Your task to perform on an android device: Open Youtube and go to "Your channel" Image 0: 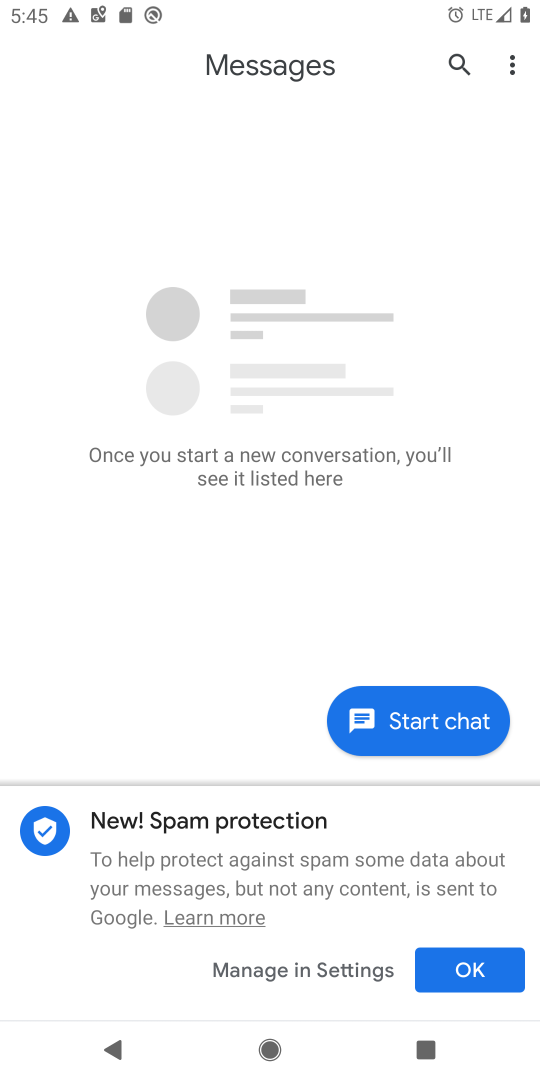
Step 0: press back button
Your task to perform on an android device: Open Youtube and go to "Your channel" Image 1: 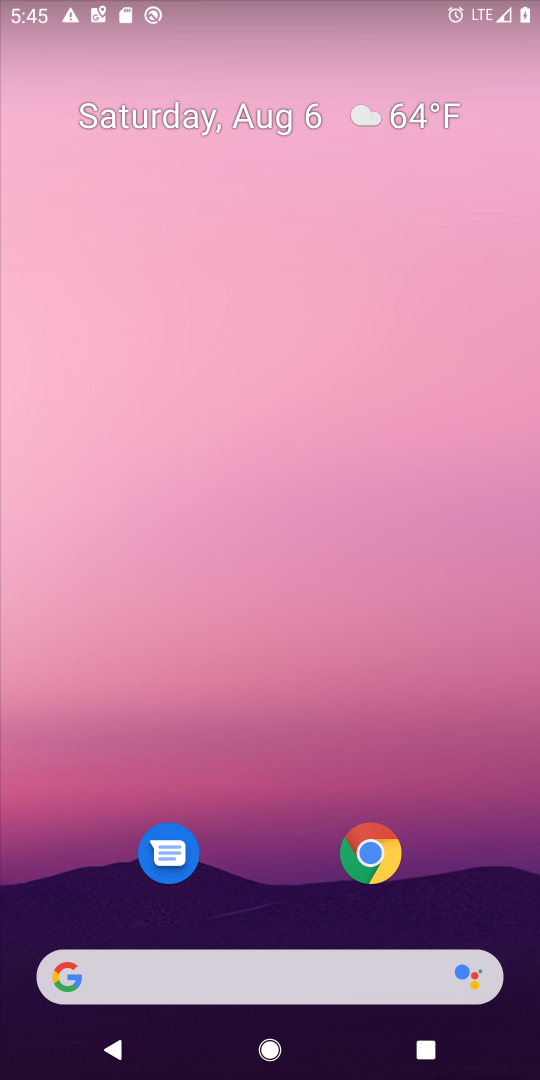
Step 1: drag from (292, 780) to (322, 91)
Your task to perform on an android device: Open Youtube and go to "Your channel" Image 2: 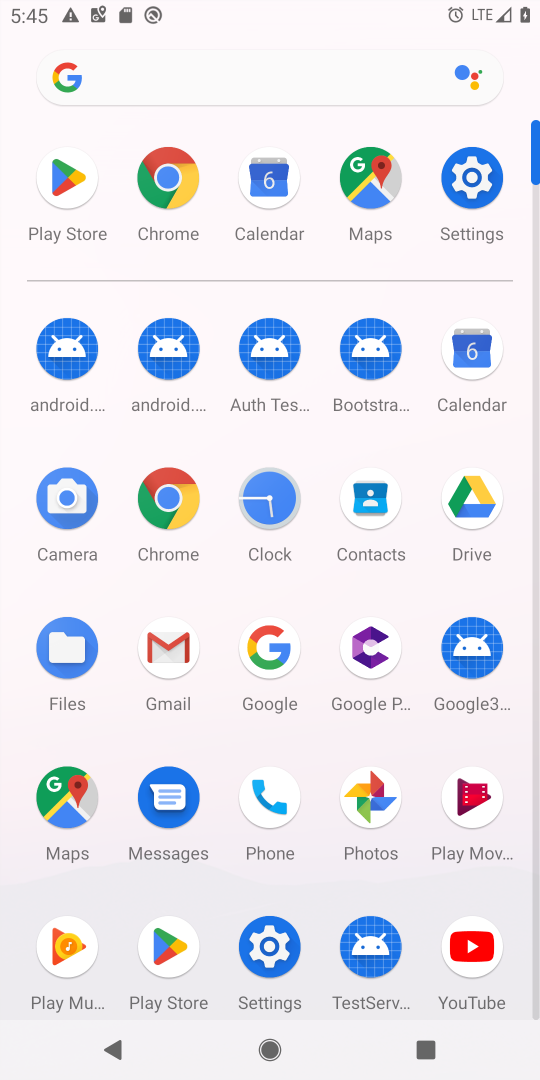
Step 2: click (471, 966)
Your task to perform on an android device: Open Youtube and go to "Your channel" Image 3: 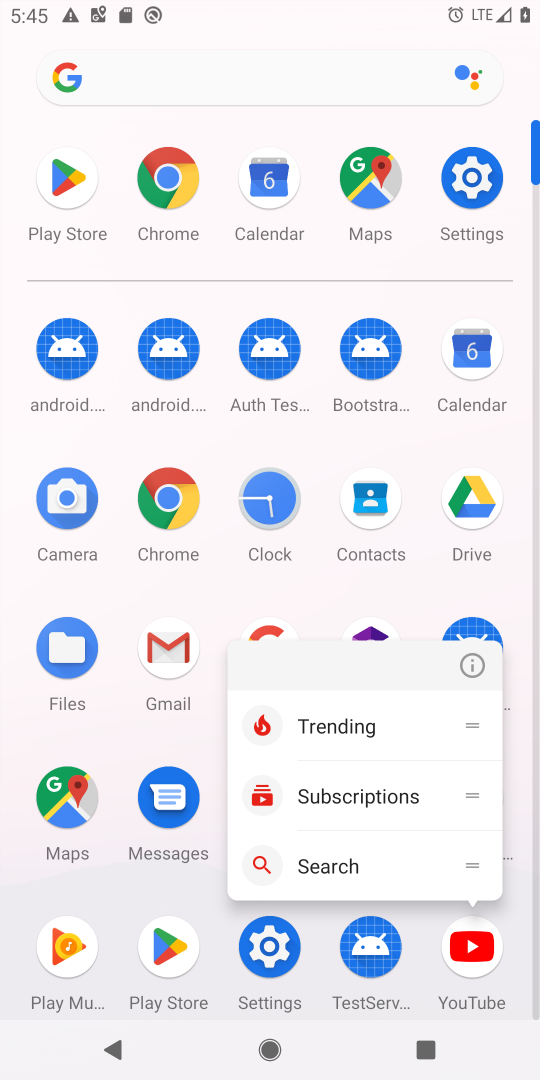
Step 3: click (472, 965)
Your task to perform on an android device: Open Youtube and go to "Your channel" Image 4: 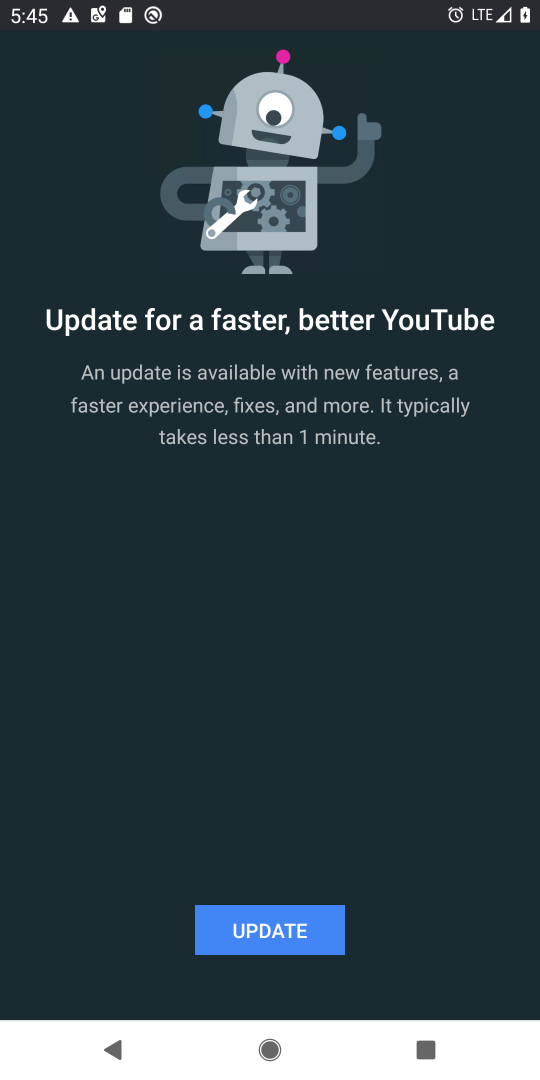
Step 4: click (274, 939)
Your task to perform on an android device: Open Youtube and go to "Your channel" Image 5: 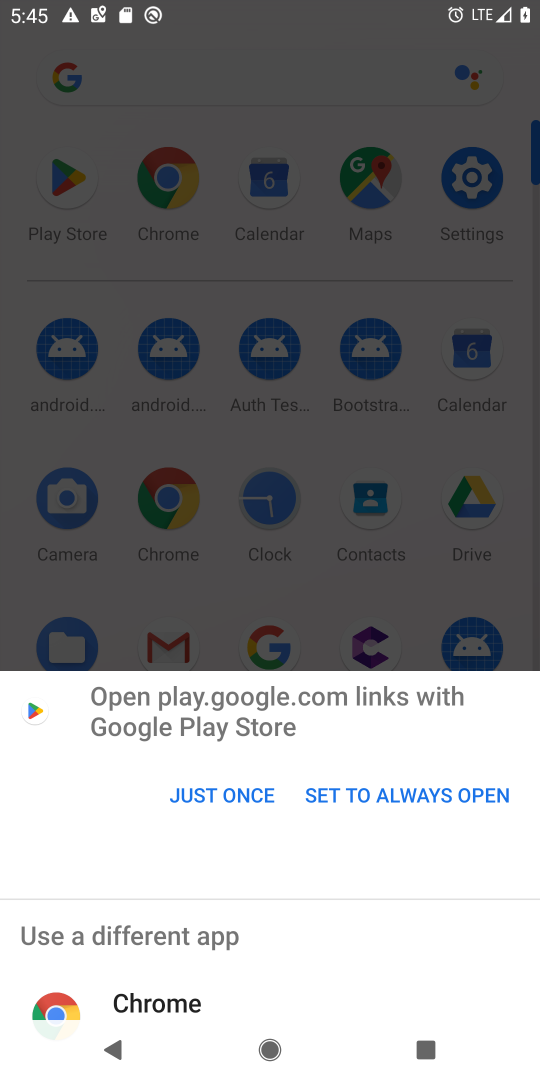
Step 5: click (236, 789)
Your task to perform on an android device: Open Youtube and go to "Your channel" Image 6: 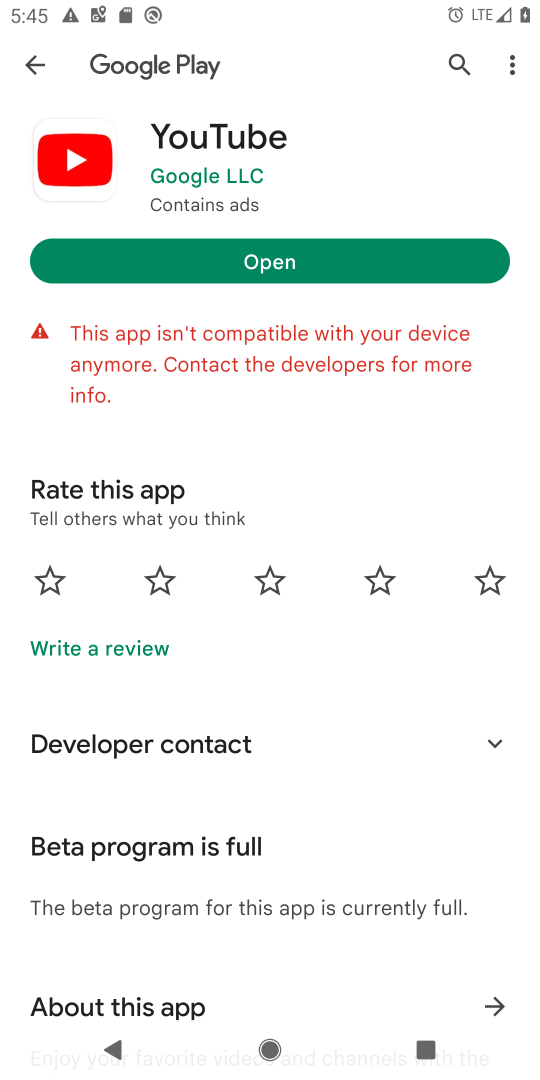
Step 6: click (295, 262)
Your task to perform on an android device: Open Youtube and go to "Your channel" Image 7: 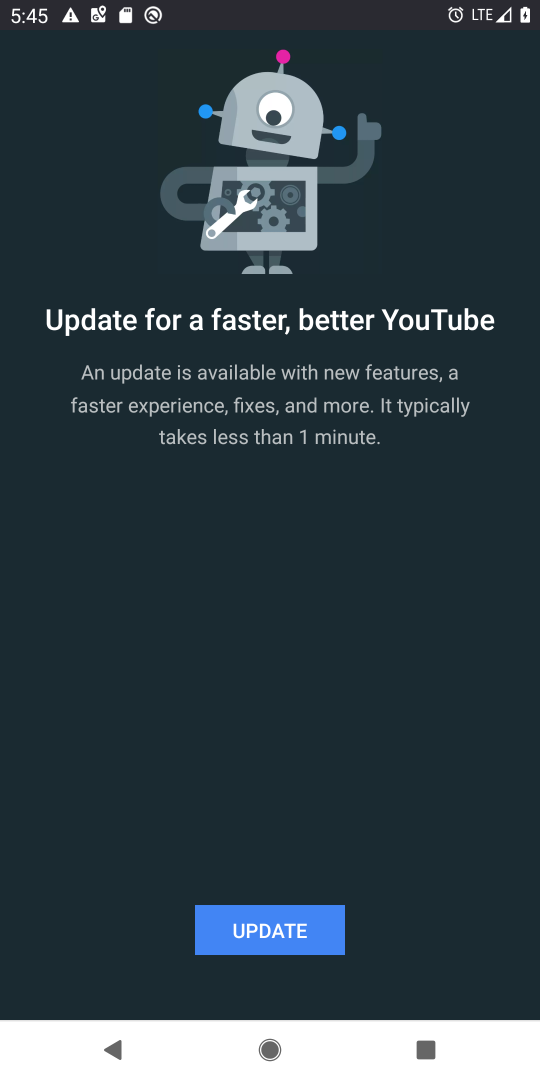
Step 7: task complete